Your task to perform on an android device: Do I have any events this weekend? Image 0: 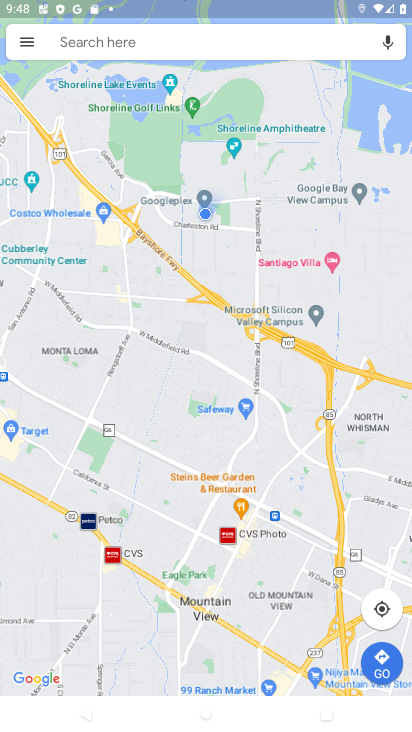
Step 0: press home button
Your task to perform on an android device: Do I have any events this weekend? Image 1: 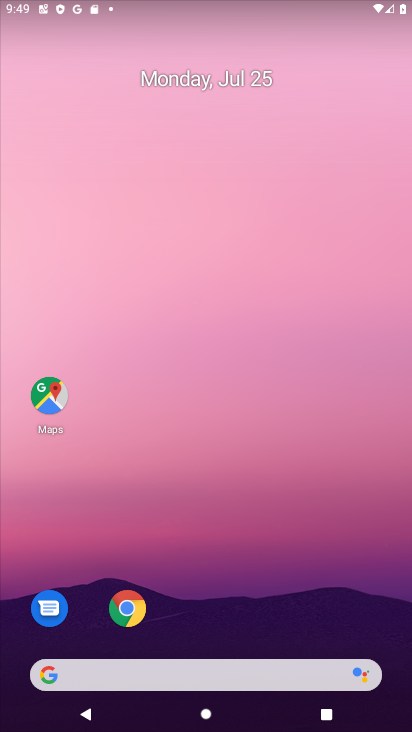
Step 1: drag from (228, 620) to (230, 249)
Your task to perform on an android device: Do I have any events this weekend? Image 2: 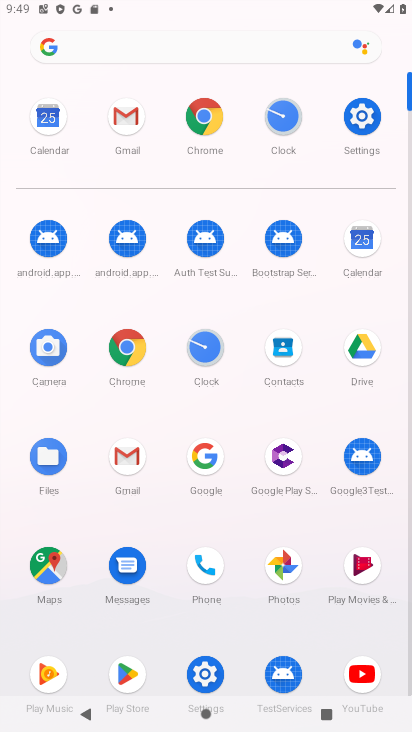
Step 2: click (356, 232)
Your task to perform on an android device: Do I have any events this weekend? Image 3: 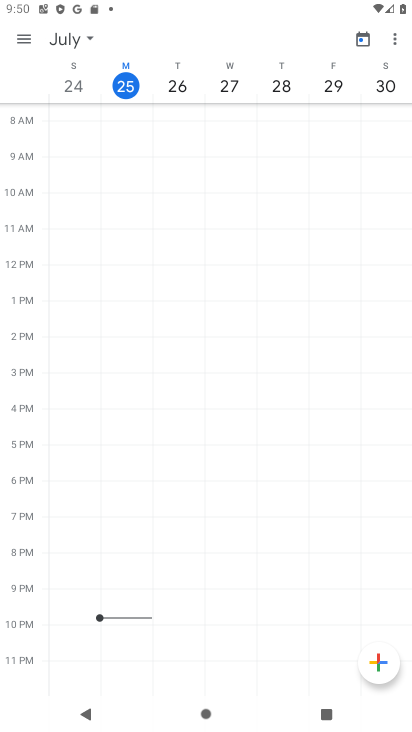
Step 3: task complete